Your task to perform on an android device: Open the web browser Image 0: 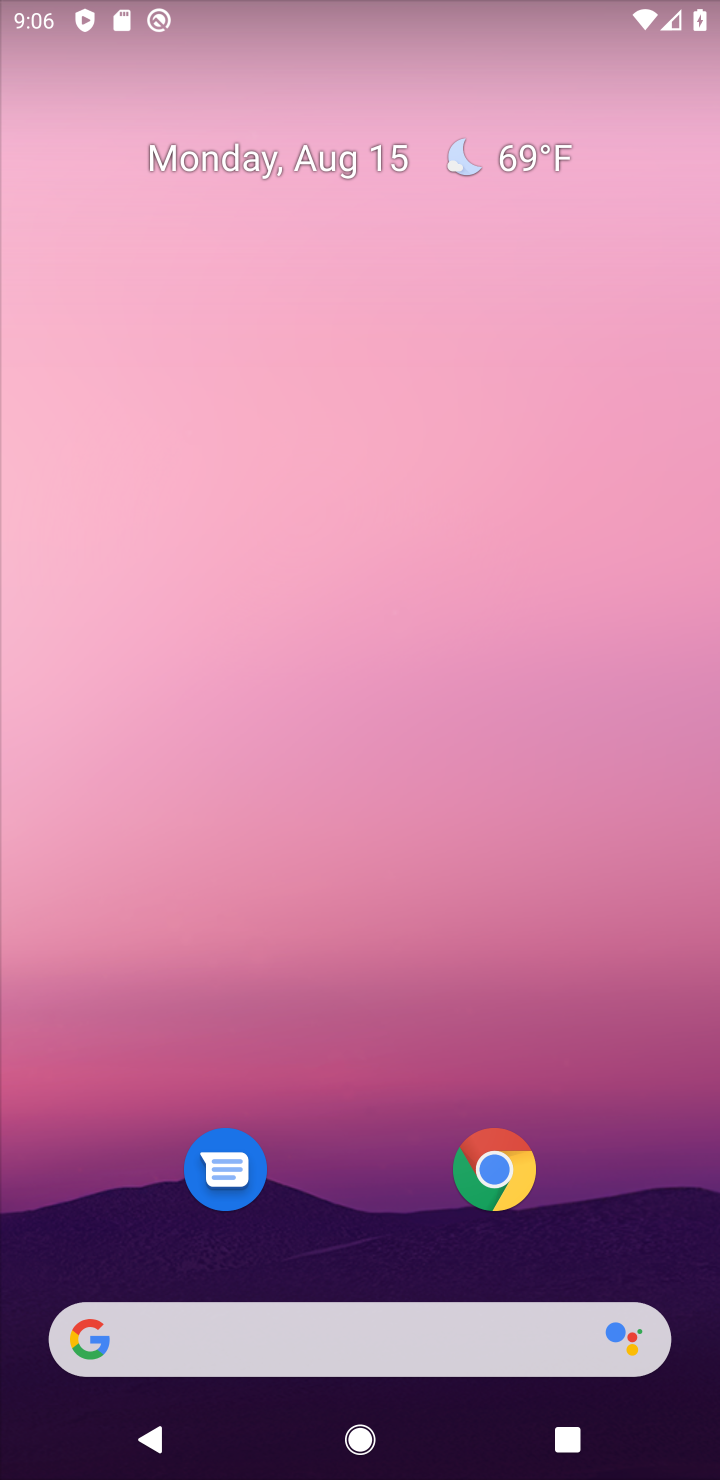
Step 0: press home button
Your task to perform on an android device: Open the web browser Image 1: 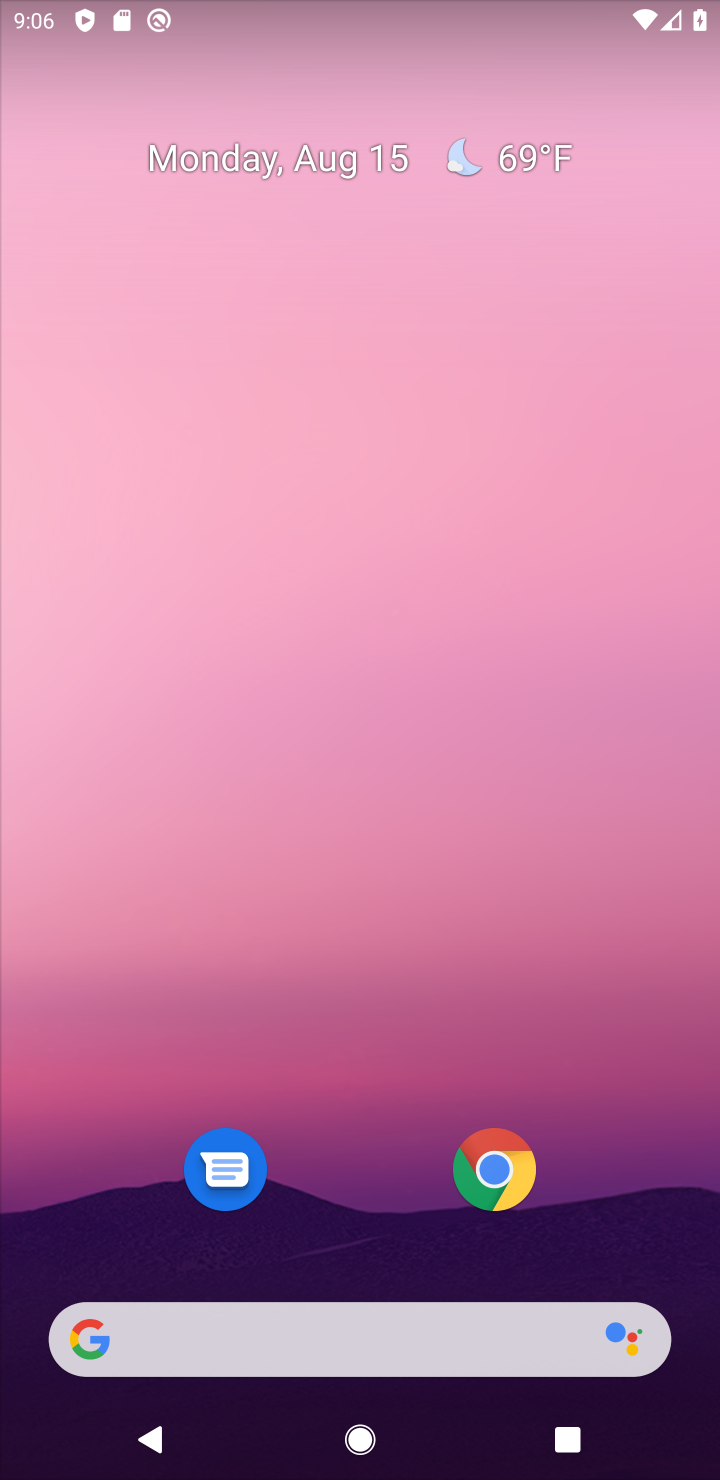
Step 1: click (480, 1168)
Your task to perform on an android device: Open the web browser Image 2: 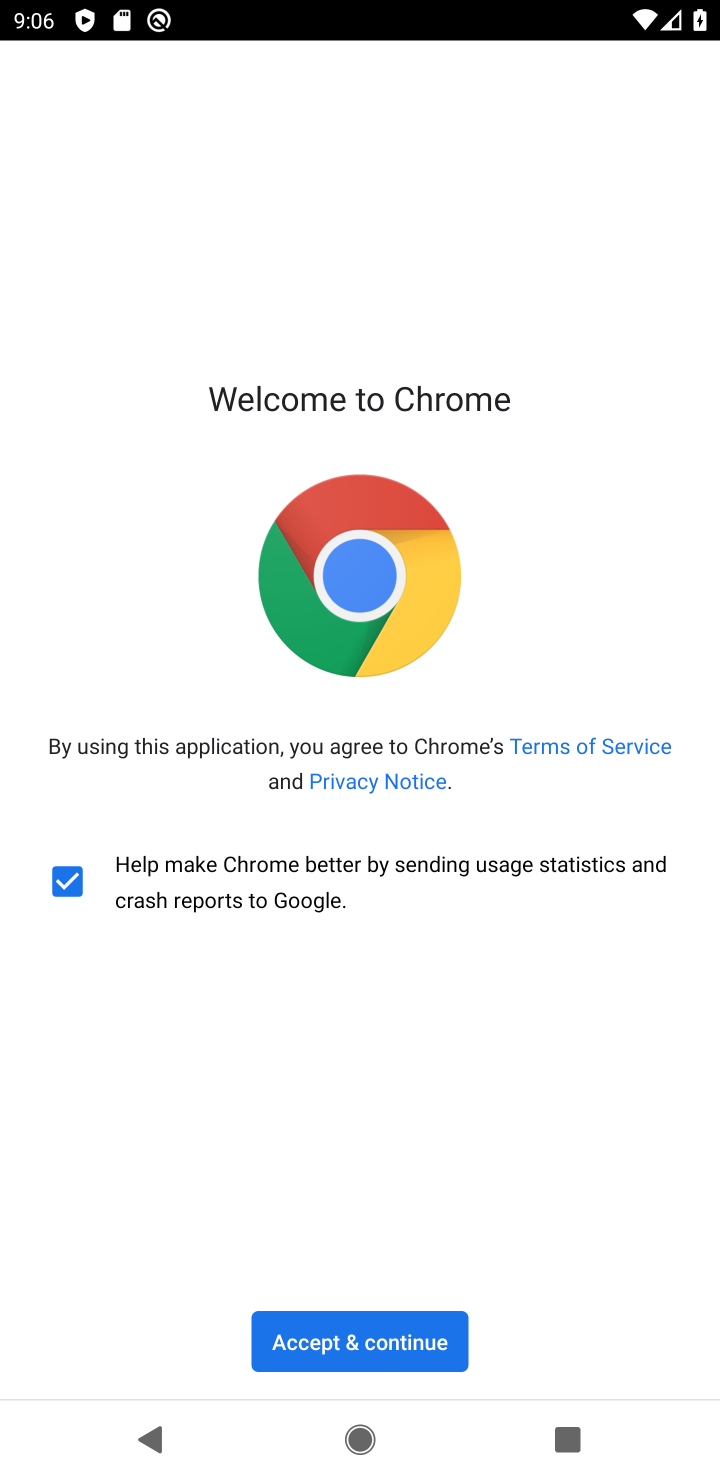
Step 2: click (353, 1333)
Your task to perform on an android device: Open the web browser Image 3: 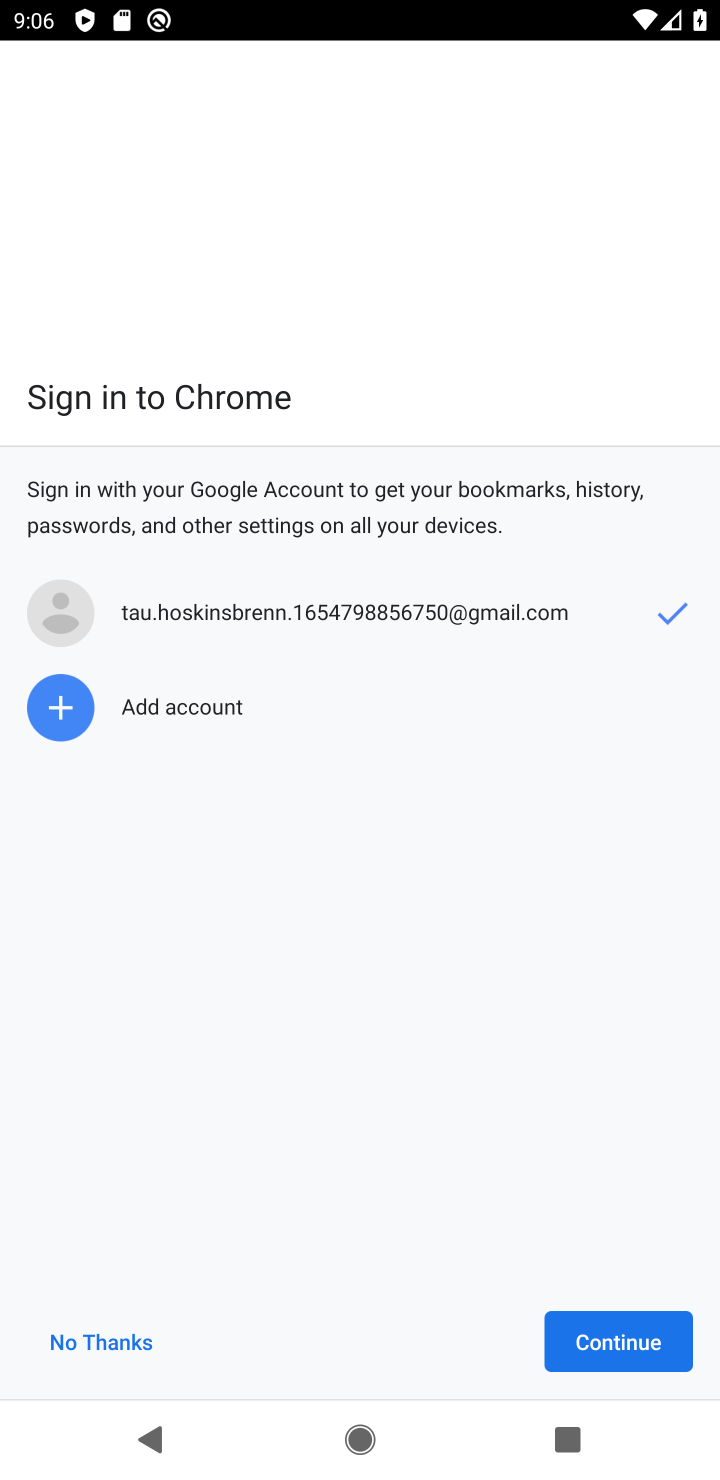
Step 3: click (618, 1317)
Your task to perform on an android device: Open the web browser Image 4: 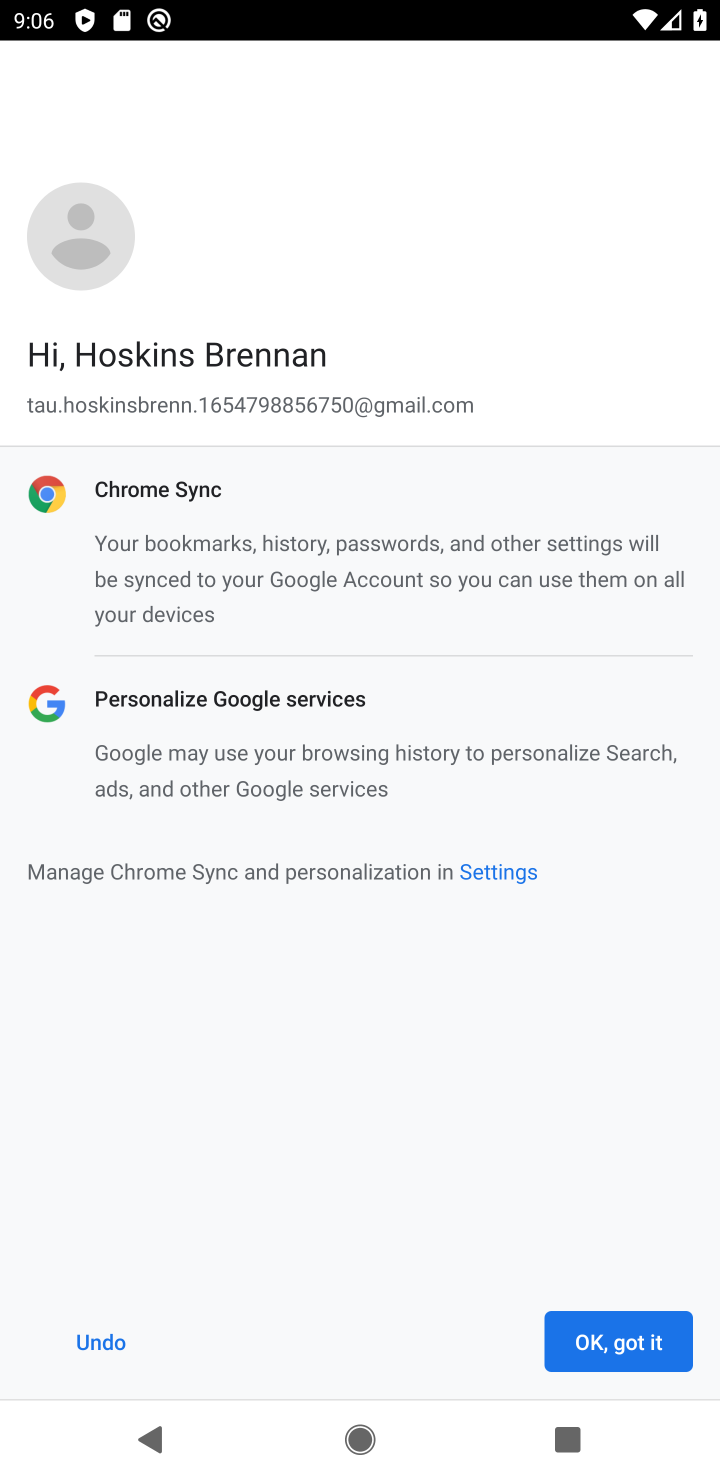
Step 4: click (618, 1341)
Your task to perform on an android device: Open the web browser Image 5: 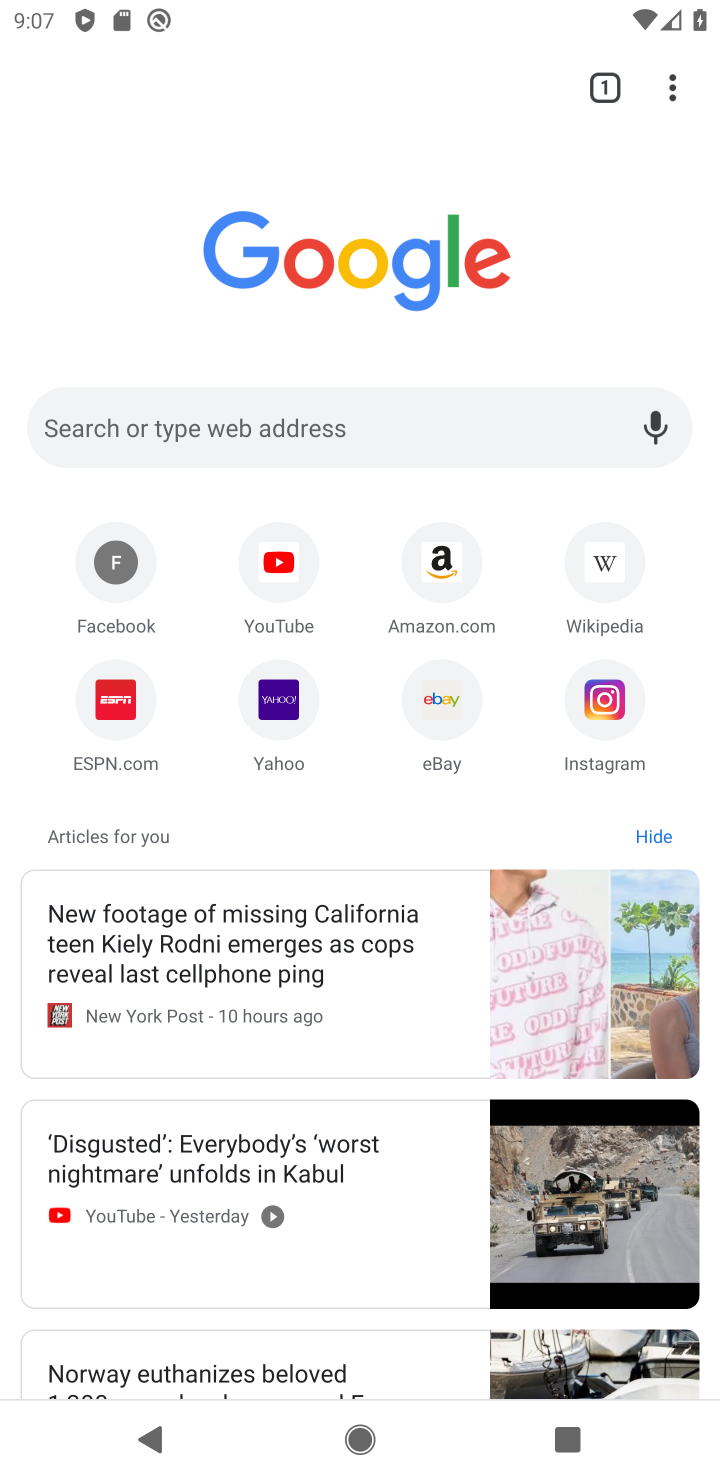
Step 5: task complete